Your task to perform on an android device: Go to Google Image 0: 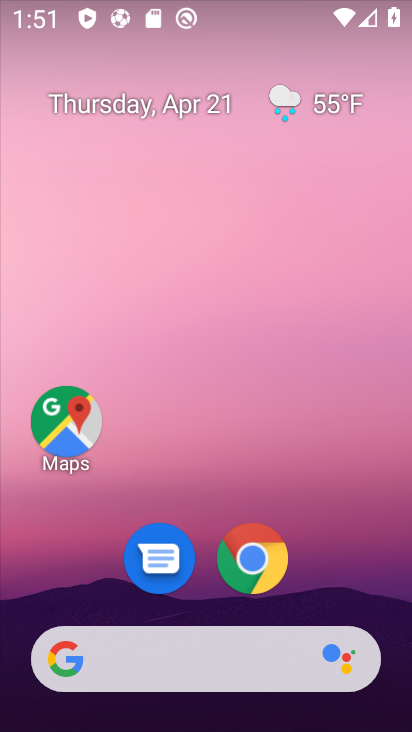
Step 0: drag from (158, 333) to (272, 11)
Your task to perform on an android device: Go to Google Image 1: 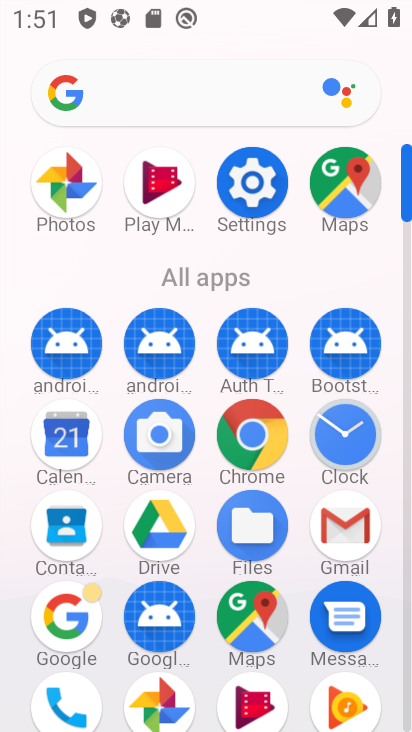
Step 1: click (64, 620)
Your task to perform on an android device: Go to Google Image 2: 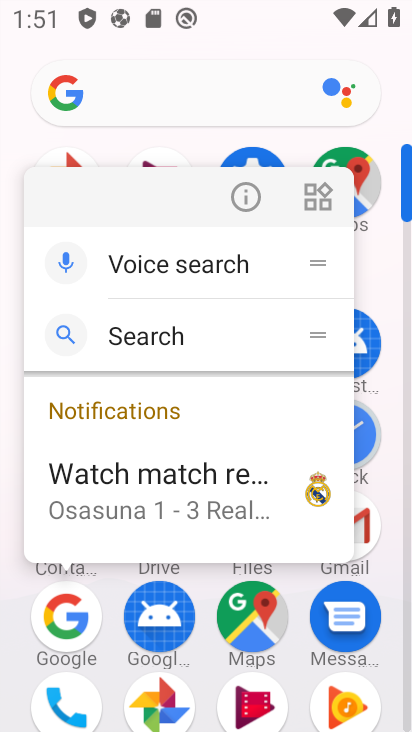
Step 2: click (71, 611)
Your task to perform on an android device: Go to Google Image 3: 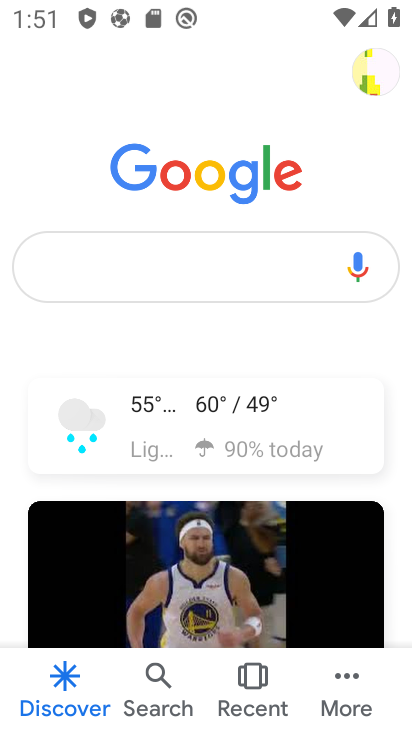
Step 3: task complete